Your task to perform on an android device: Go to battery settings Image 0: 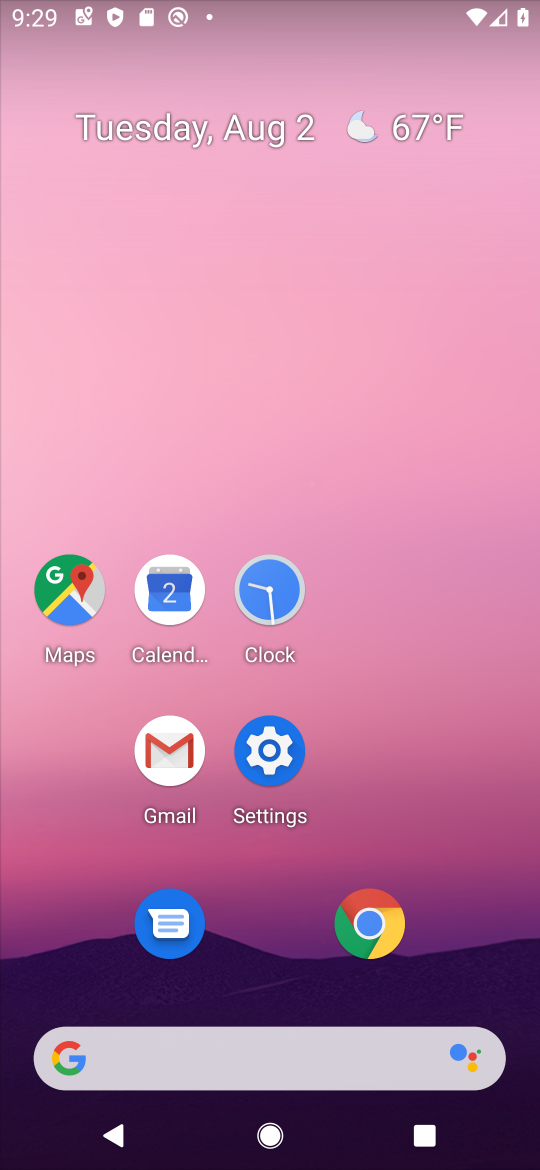
Step 0: click (279, 772)
Your task to perform on an android device: Go to battery settings Image 1: 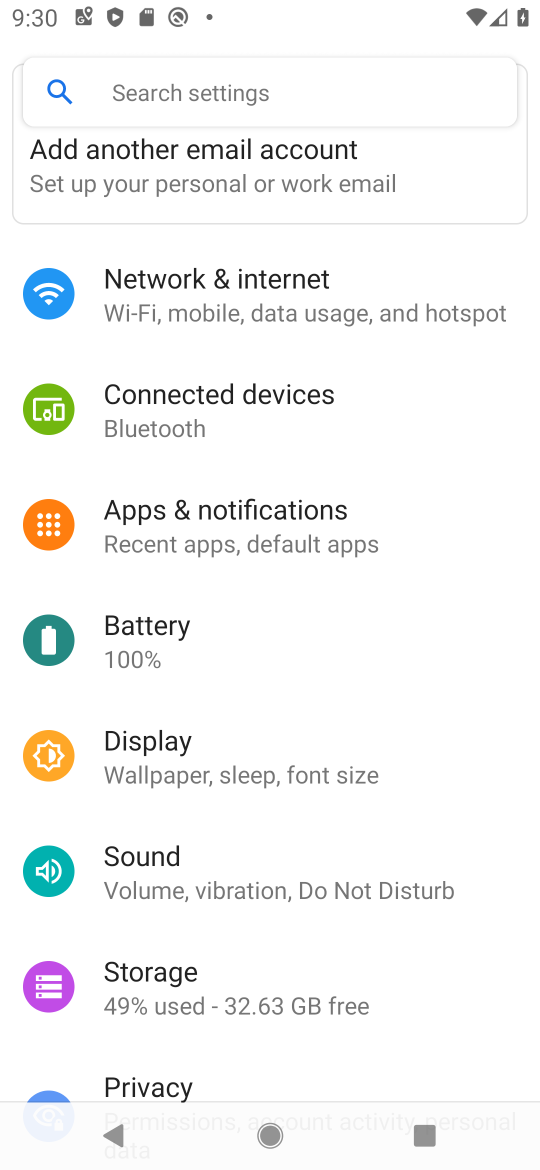
Step 1: click (183, 650)
Your task to perform on an android device: Go to battery settings Image 2: 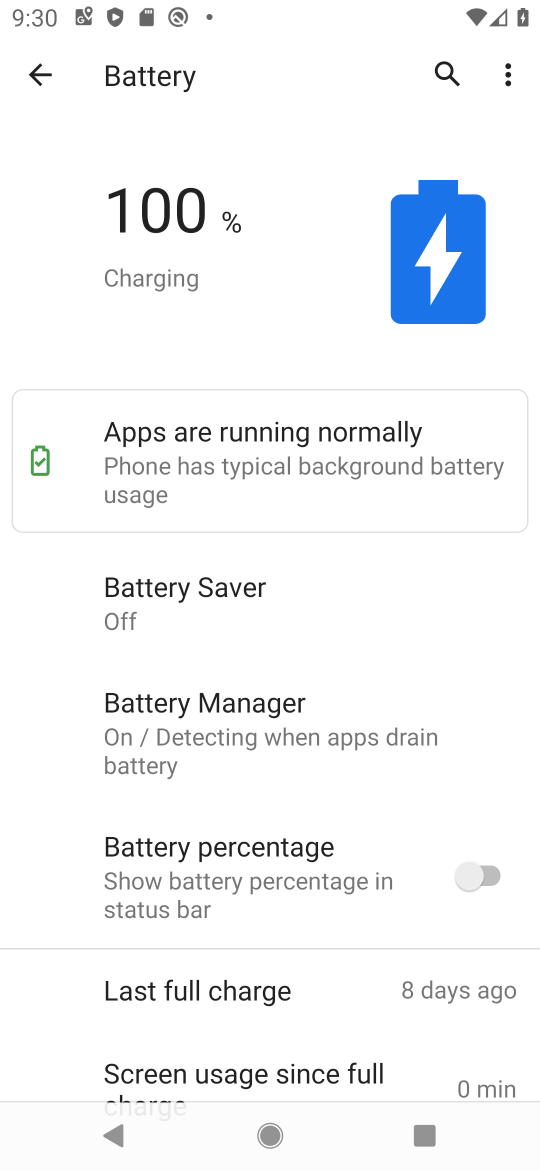
Step 2: task complete